Your task to perform on an android device: turn off picture-in-picture Image 0: 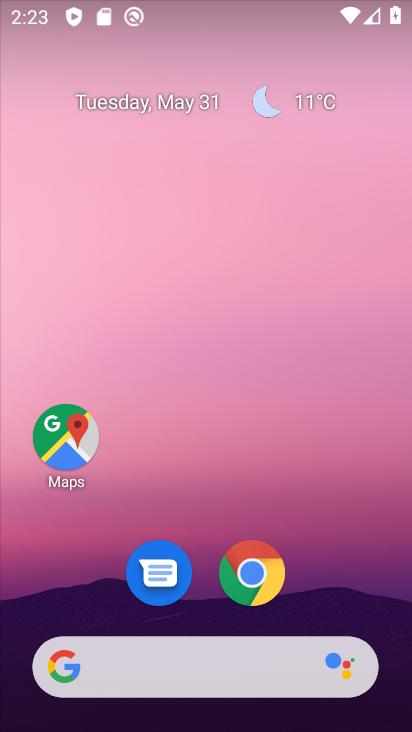
Step 0: click (268, 575)
Your task to perform on an android device: turn off picture-in-picture Image 1: 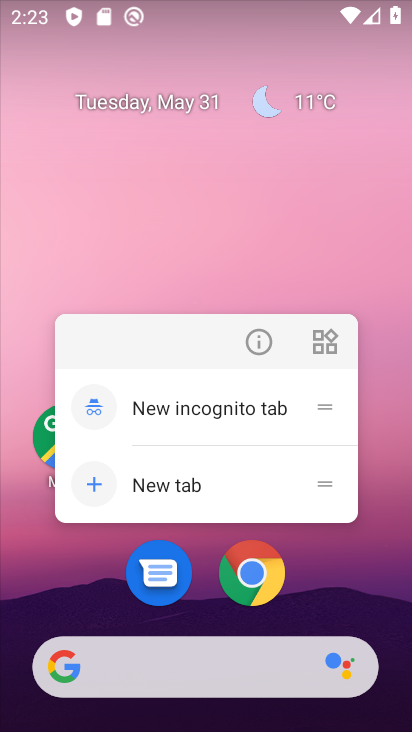
Step 1: click (253, 340)
Your task to perform on an android device: turn off picture-in-picture Image 2: 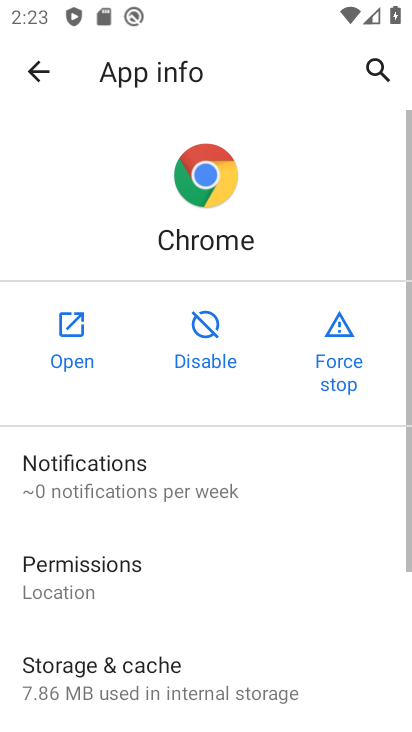
Step 2: drag from (223, 576) to (174, 76)
Your task to perform on an android device: turn off picture-in-picture Image 3: 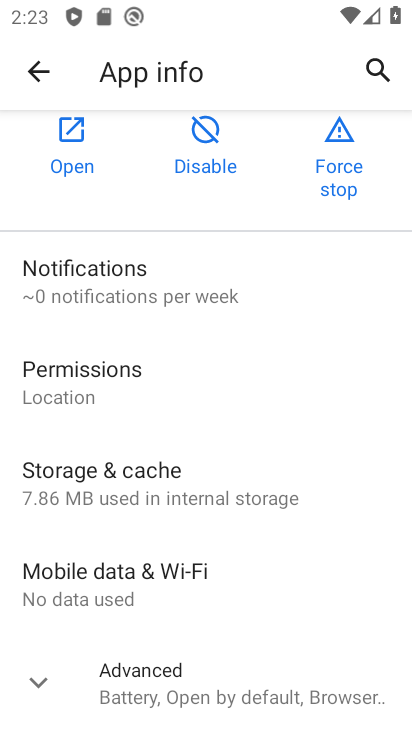
Step 3: click (228, 688)
Your task to perform on an android device: turn off picture-in-picture Image 4: 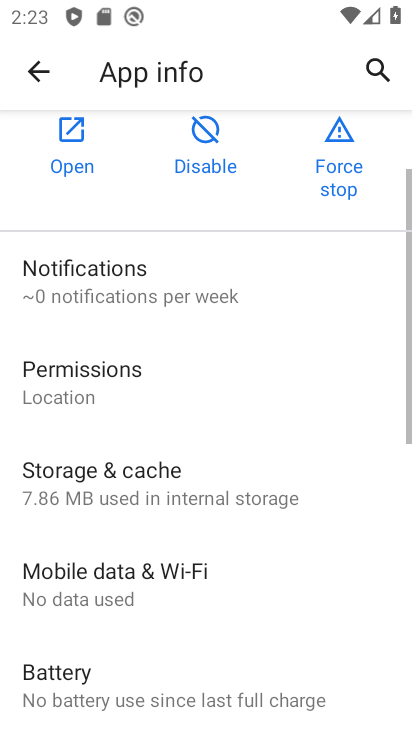
Step 4: drag from (228, 688) to (212, 129)
Your task to perform on an android device: turn off picture-in-picture Image 5: 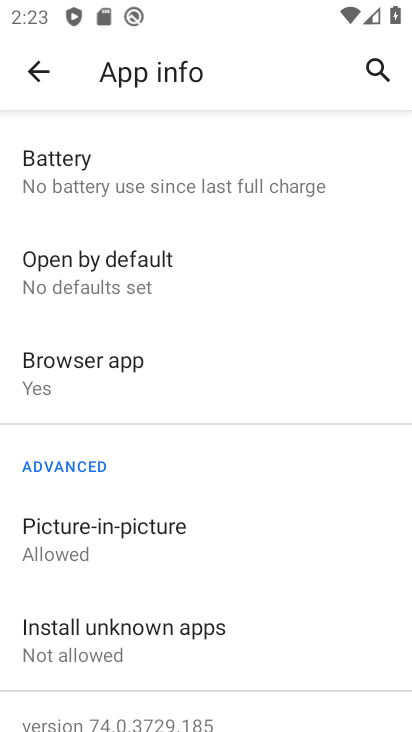
Step 5: click (246, 540)
Your task to perform on an android device: turn off picture-in-picture Image 6: 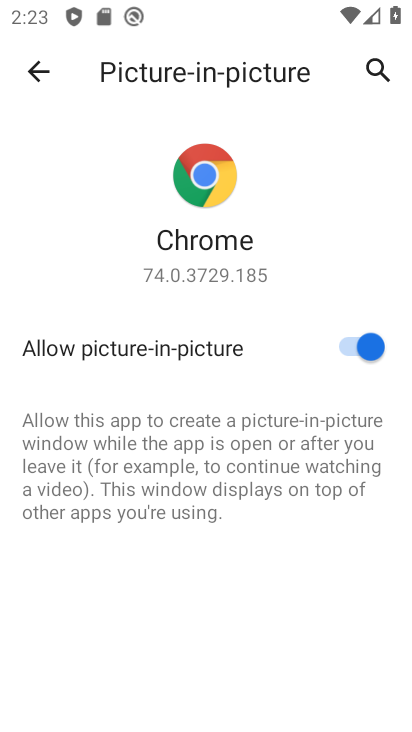
Step 6: click (349, 355)
Your task to perform on an android device: turn off picture-in-picture Image 7: 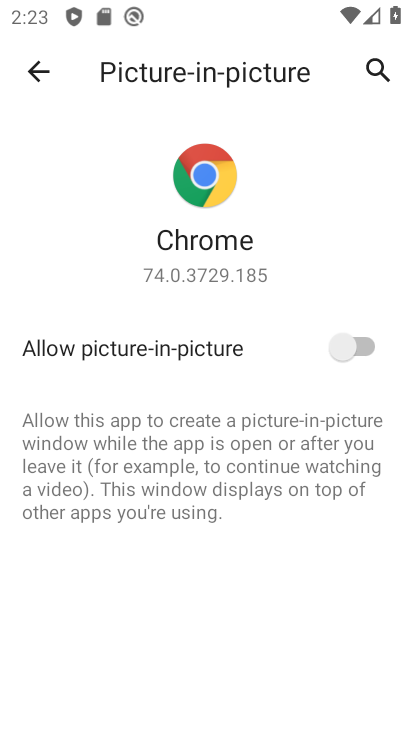
Step 7: task complete